Your task to perform on an android device: turn pop-ups off in chrome Image 0: 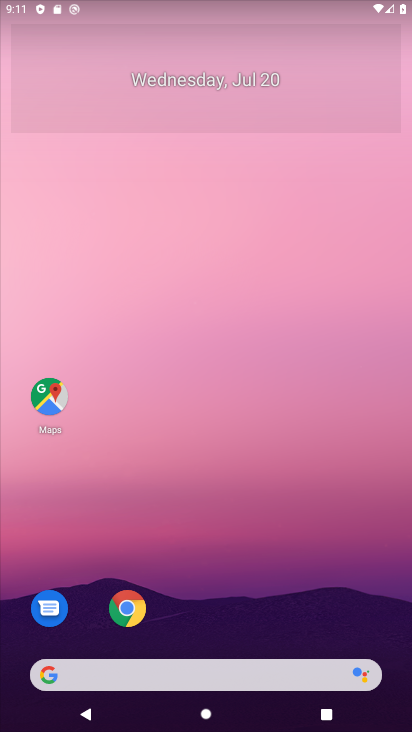
Step 0: drag from (224, 634) to (191, 142)
Your task to perform on an android device: turn pop-ups off in chrome Image 1: 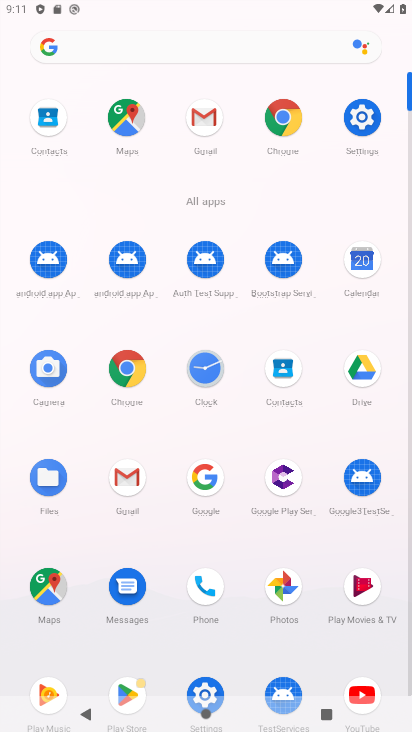
Step 1: click (295, 127)
Your task to perform on an android device: turn pop-ups off in chrome Image 2: 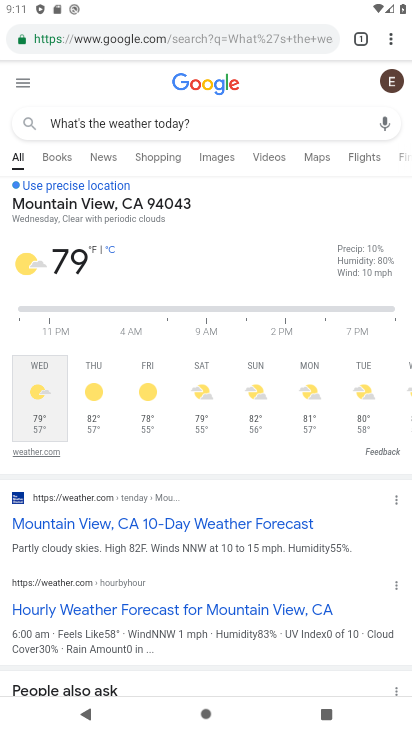
Step 2: click (395, 36)
Your task to perform on an android device: turn pop-ups off in chrome Image 3: 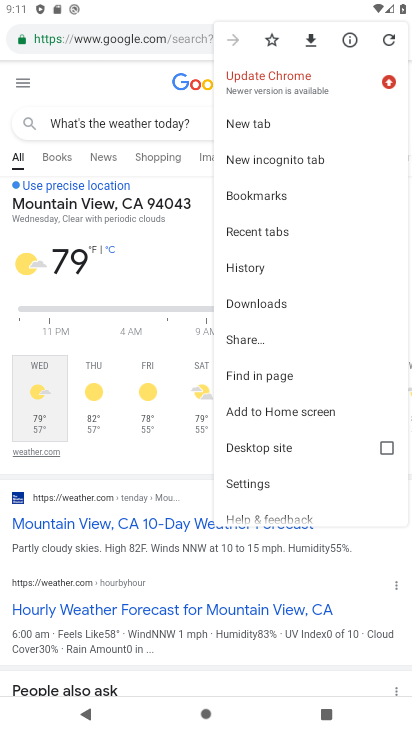
Step 3: click (242, 478)
Your task to perform on an android device: turn pop-ups off in chrome Image 4: 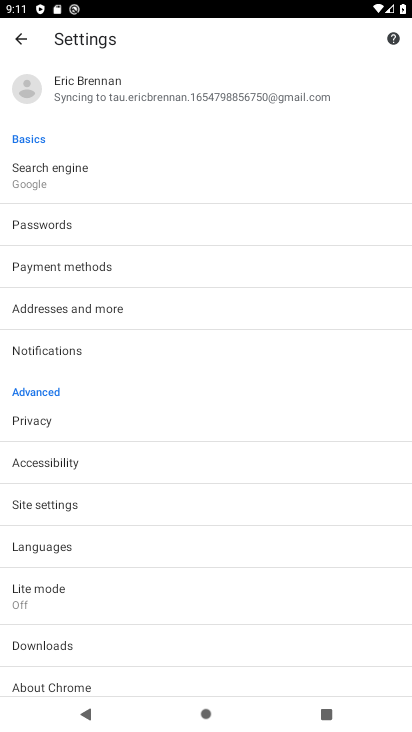
Step 4: click (131, 503)
Your task to perform on an android device: turn pop-ups off in chrome Image 5: 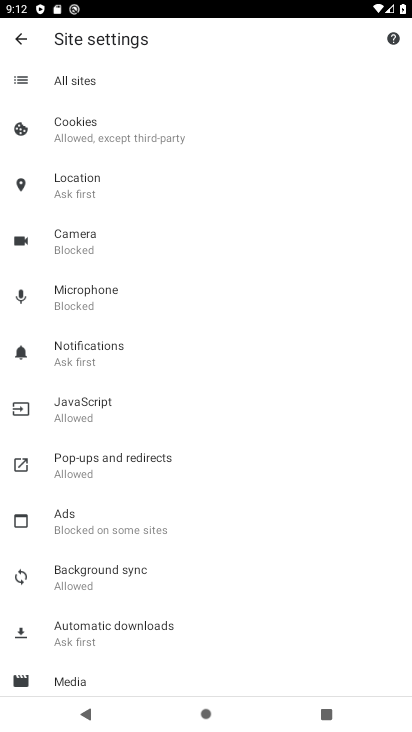
Step 5: click (151, 451)
Your task to perform on an android device: turn pop-ups off in chrome Image 6: 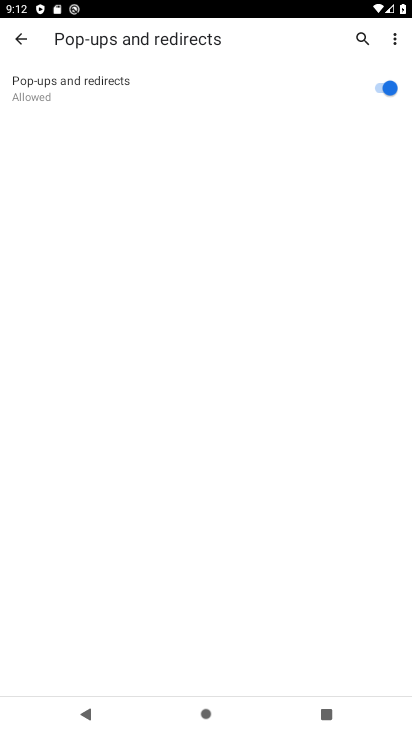
Step 6: click (370, 90)
Your task to perform on an android device: turn pop-ups off in chrome Image 7: 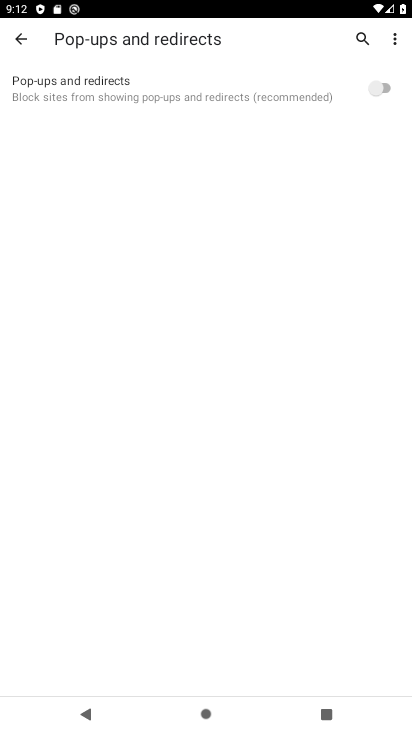
Step 7: task complete